Your task to perform on an android device: Show me popular videos on Youtube Image 0: 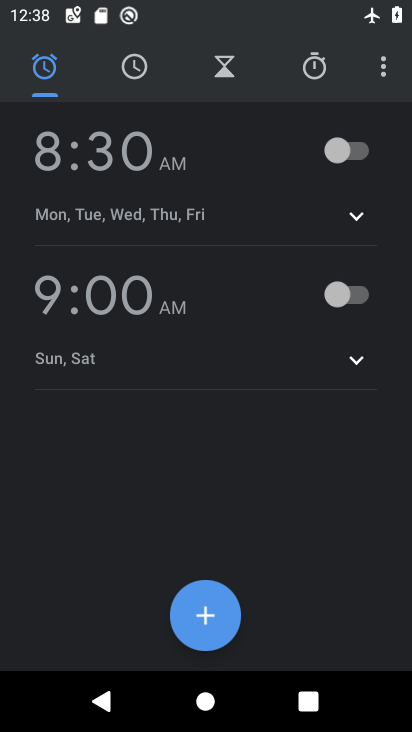
Step 0: press home button
Your task to perform on an android device: Show me popular videos on Youtube Image 1: 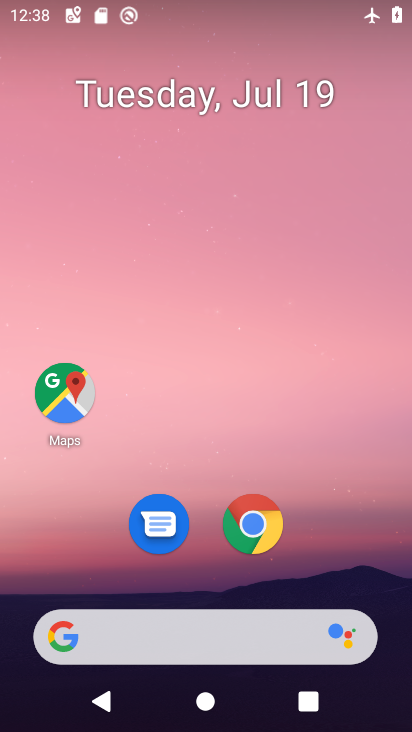
Step 1: drag from (315, 531) to (301, 61)
Your task to perform on an android device: Show me popular videos on Youtube Image 2: 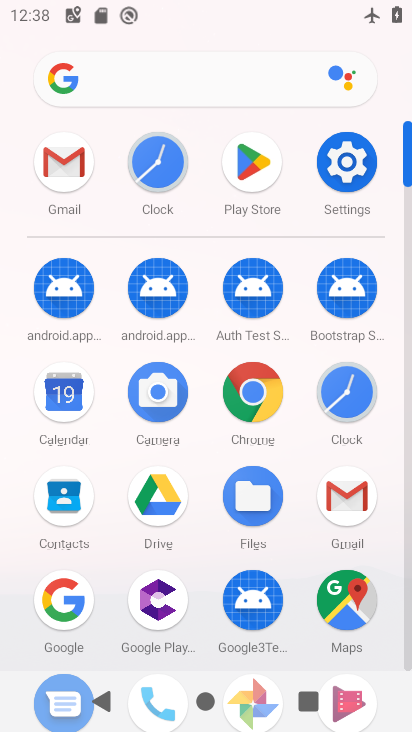
Step 2: click (333, 165)
Your task to perform on an android device: Show me popular videos on Youtube Image 3: 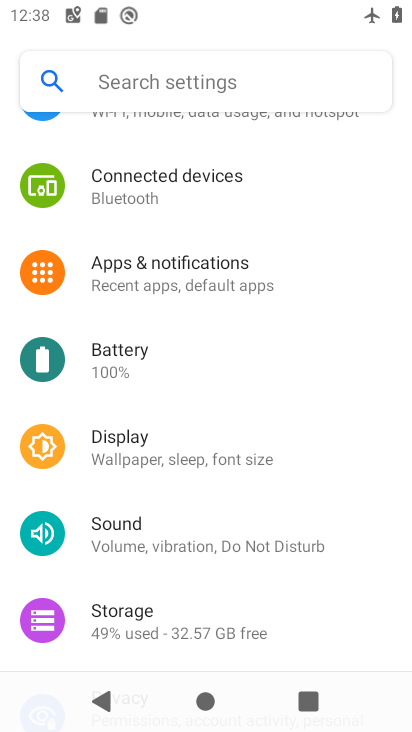
Step 3: drag from (328, 156) to (315, 387)
Your task to perform on an android device: Show me popular videos on Youtube Image 4: 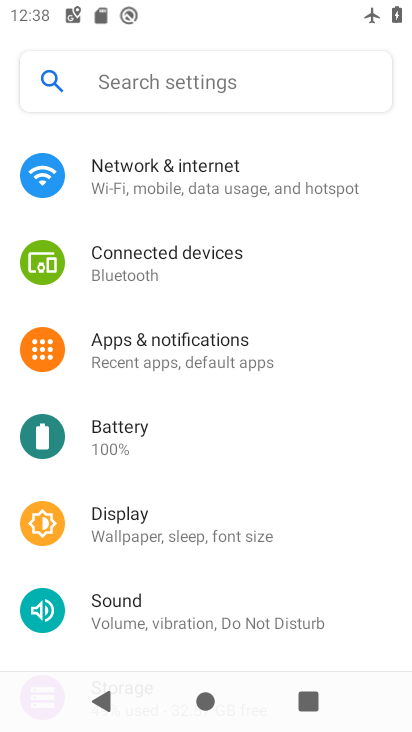
Step 4: click (303, 170)
Your task to perform on an android device: Show me popular videos on Youtube Image 5: 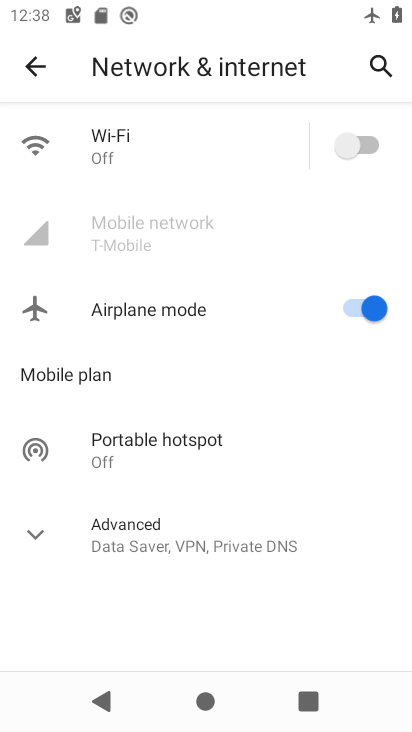
Step 5: click (368, 297)
Your task to perform on an android device: Show me popular videos on Youtube Image 6: 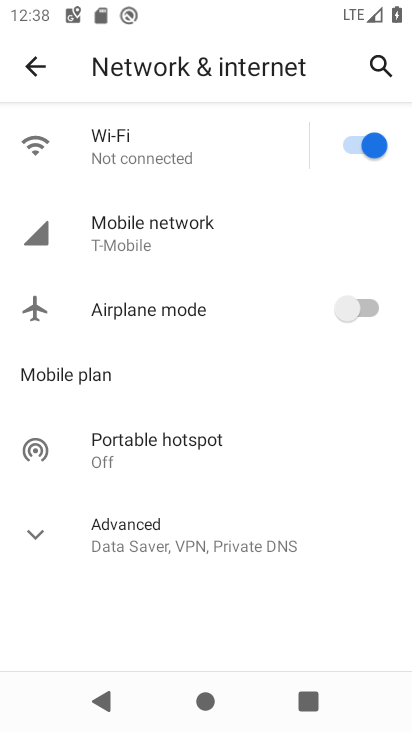
Step 6: press home button
Your task to perform on an android device: Show me popular videos on Youtube Image 7: 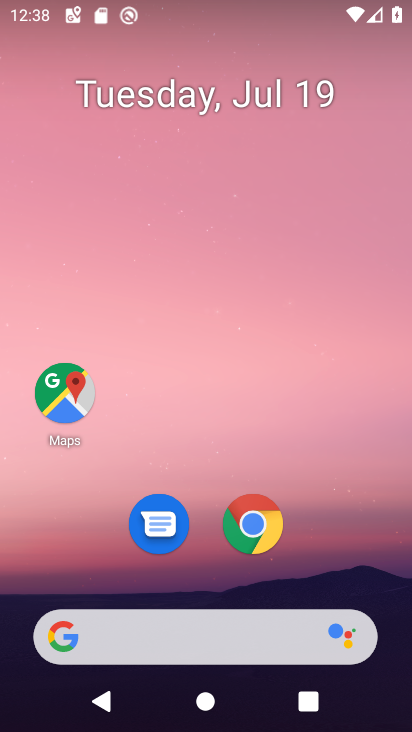
Step 7: drag from (328, 557) to (334, 63)
Your task to perform on an android device: Show me popular videos on Youtube Image 8: 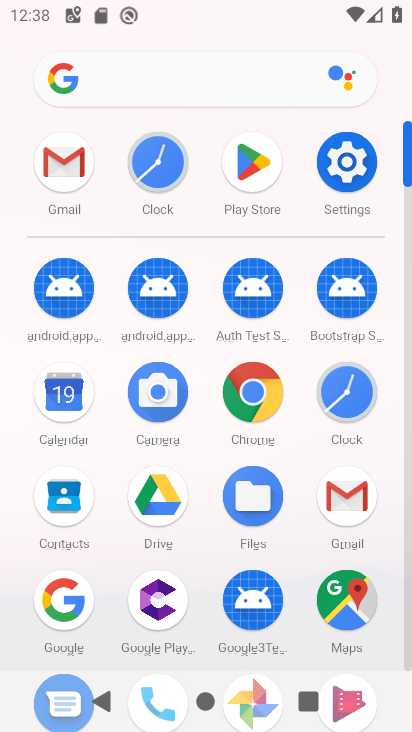
Step 8: drag from (321, 569) to (316, 206)
Your task to perform on an android device: Show me popular videos on Youtube Image 9: 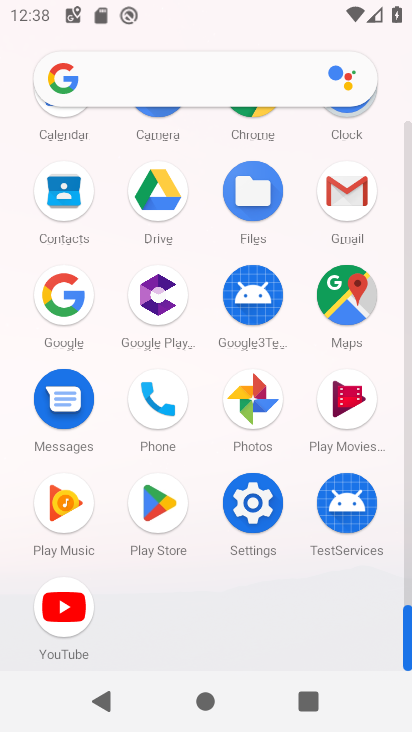
Step 9: click (75, 604)
Your task to perform on an android device: Show me popular videos on Youtube Image 10: 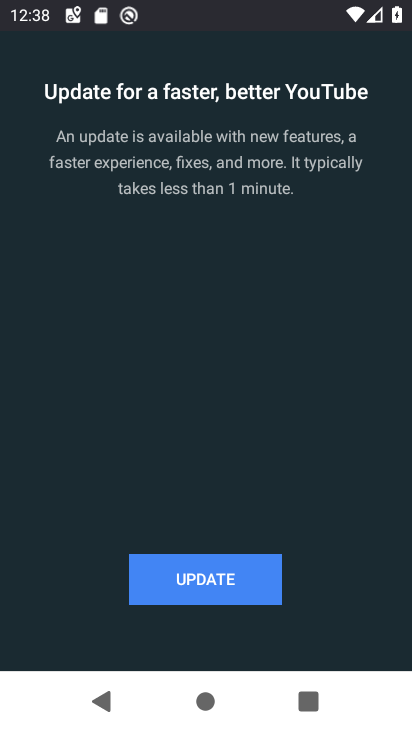
Step 10: click (200, 576)
Your task to perform on an android device: Show me popular videos on Youtube Image 11: 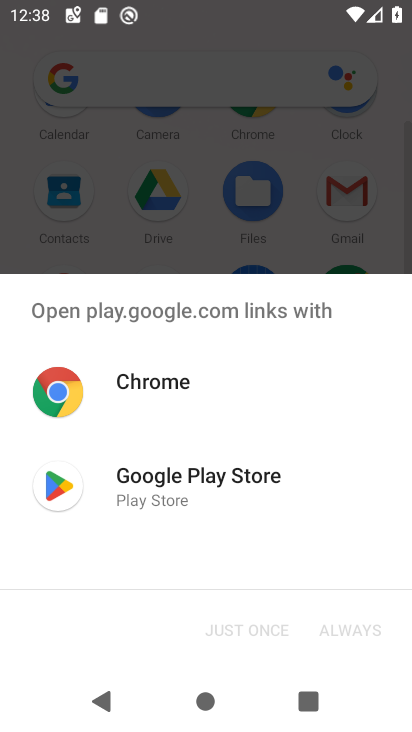
Step 11: click (181, 466)
Your task to perform on an android device: Show me popular videos on Youtube Image 12: 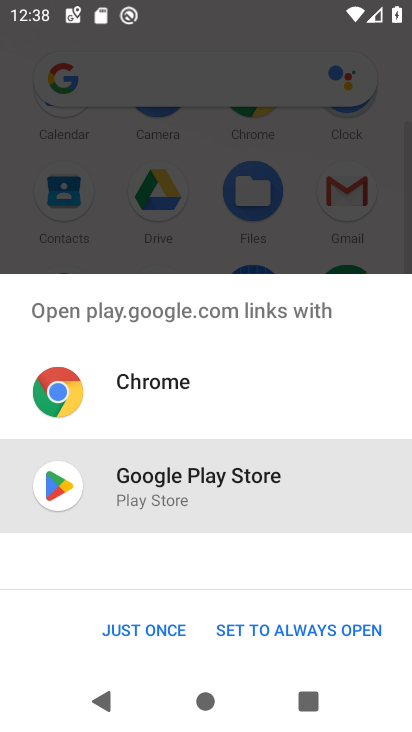
Step 12: click (164, 633)
Your task to perform on an android device: Show me popular videos on Youtube Image 13: 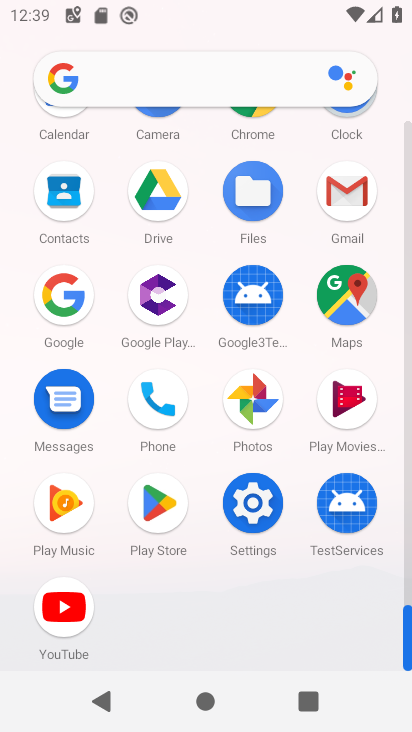
Step 13: click (83, 606)
Your task to perform on an android device: Show me popular videos on Youtube Image 14: 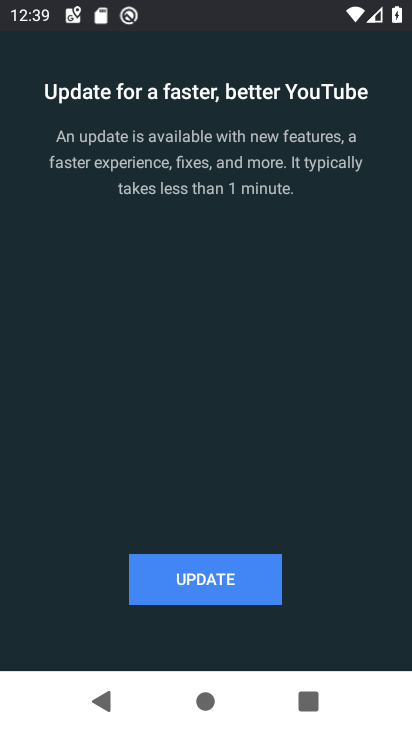
Step 14: click (197, 573)
Your task to perform on an android device: Show me popular videos on Youtube Image 15: 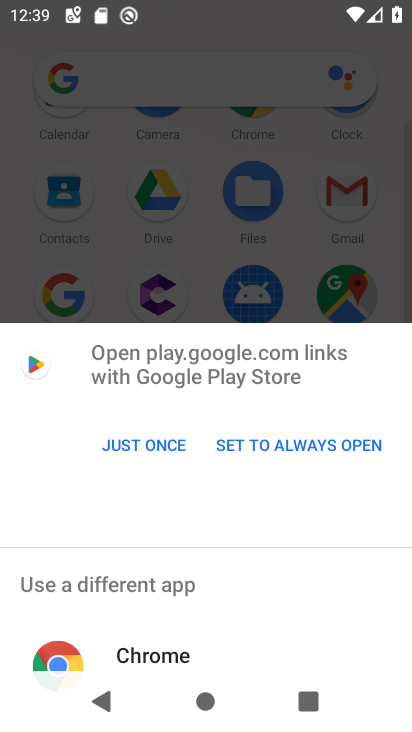
Step 15: click (157, 444)
Your task to perform on an android device: Show me popular videos on Youtube Image 16: 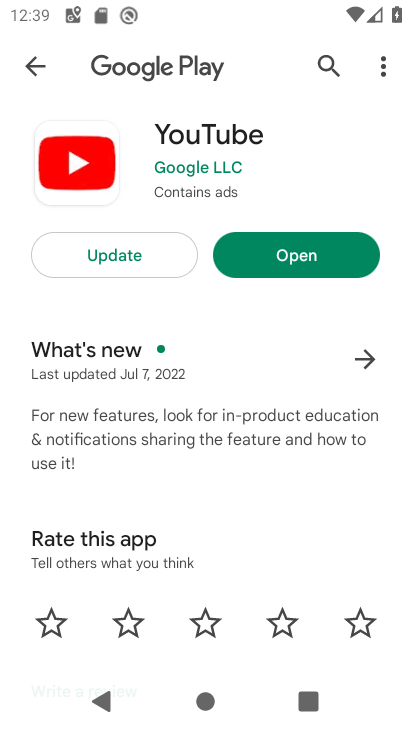
Step 16: click (122, 250)
Your task to perform on an android device: Show me popular videos on Youtube Image 17: 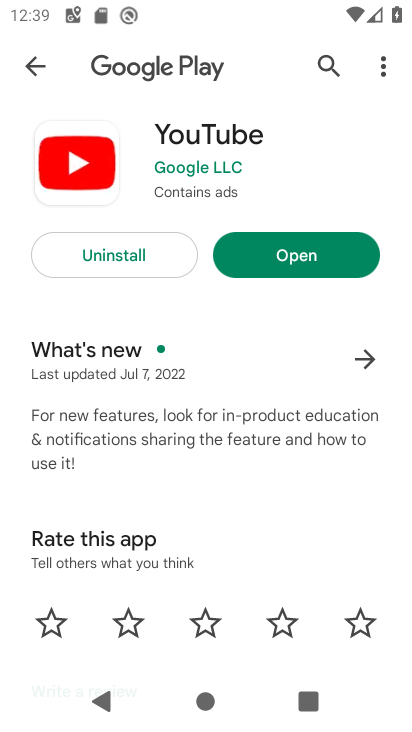
Step 17: click (264, 263)
Your task to perform on an android device: Show me popular videos on Youtube Image 18: 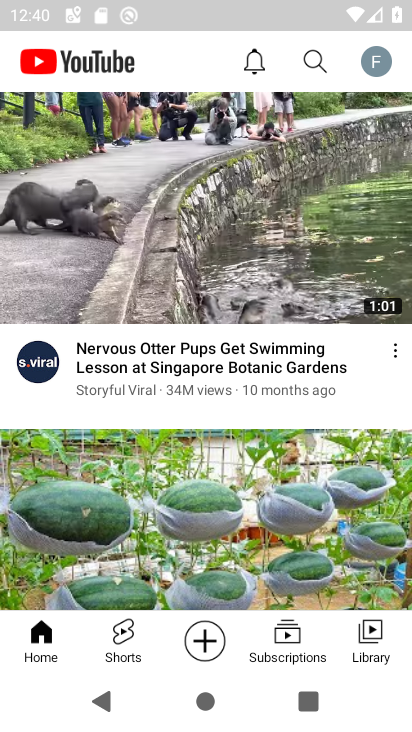
Step 18: click (313, 65)
Your task to perform on an android device: Show me popular videos on Youtube Image 19: 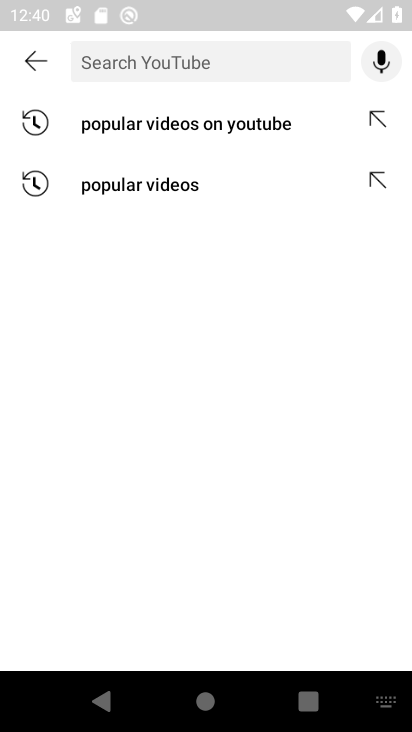
Step 19: click (245, 121)
Your task to perform on an android device: Show me popular videos on Youtube Image 20: 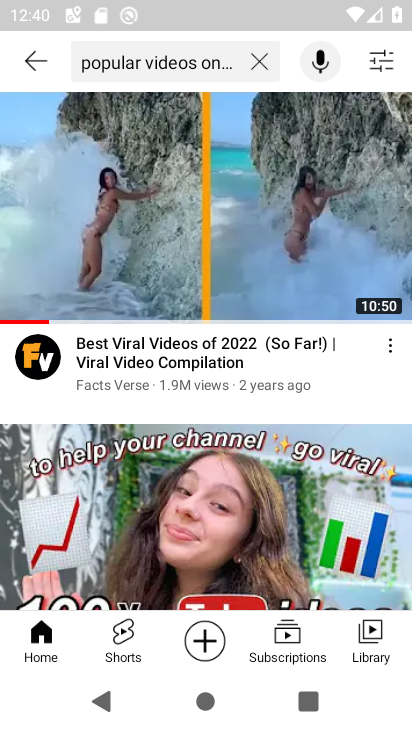
Step 20: click (240, 204)
Your task to perform on an android device: Show me popular videos on Youtube Image 21: 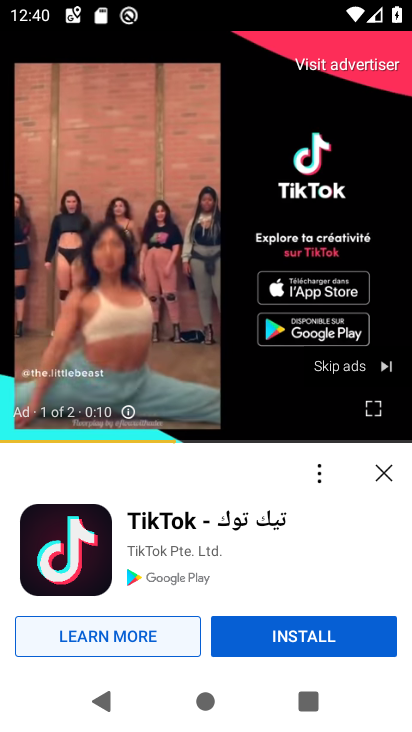
Step 21: click (382, 468)
Your task to perform on an android device: Show me popular videos on Youtube Image 22: 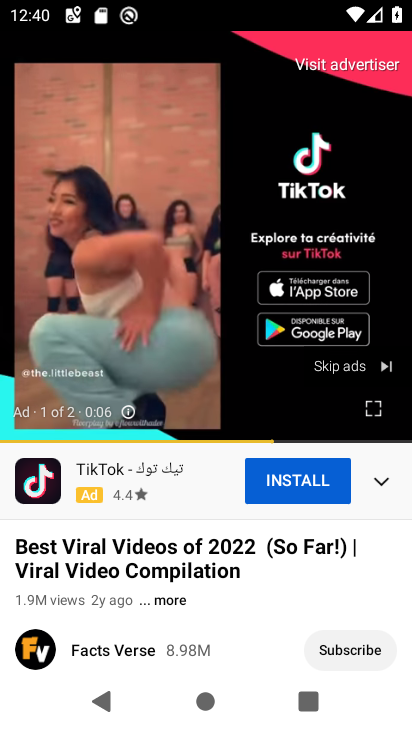
Step 22: click (360, 370)
Your task to perform on an android device: Show me popular videos on Youtube Image 23: 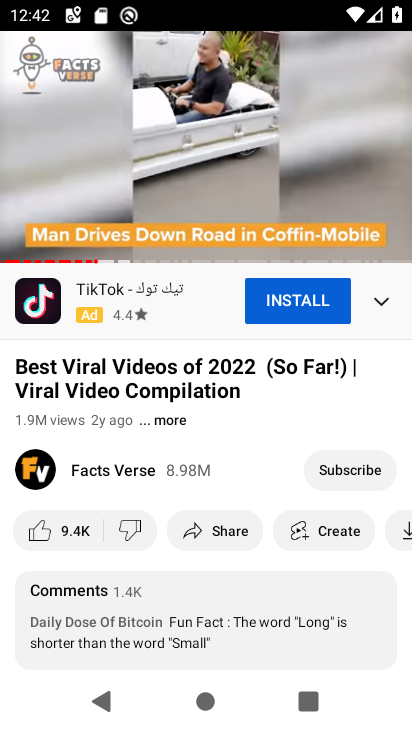
Step 23: task complete